Your task to perform on an android device: Open calendar and show me the third week of next month Image 0: 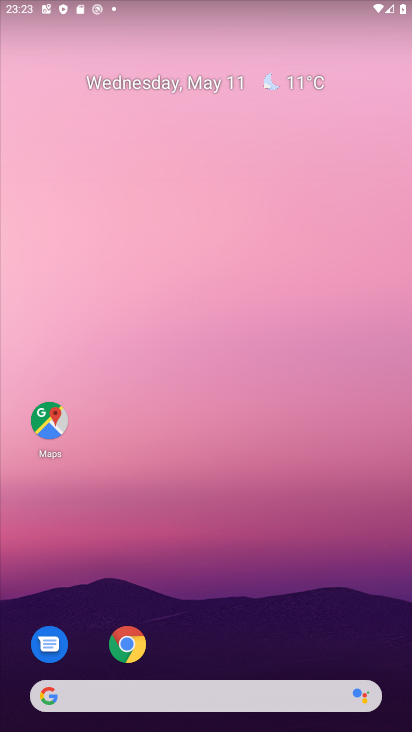
Step 0: drag from (213, 660) to (213, 61)
Your task to perform on an android device: Open calendar and show me the third week of next month Image 1: 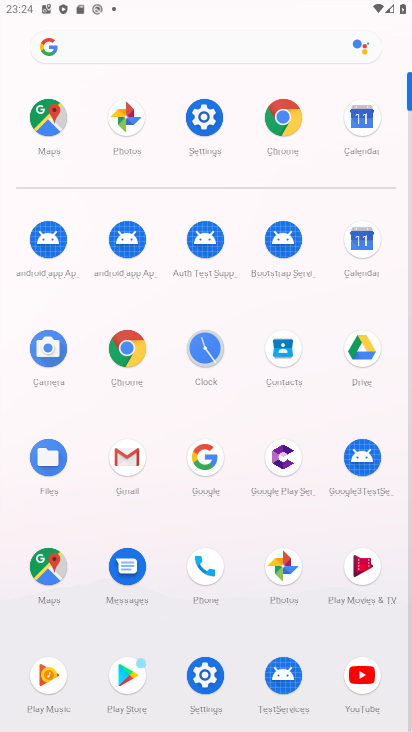
Step 1: click (360, 237)
Your task to perform on an android device: Open calendar and show me the third week of next month Image 2: 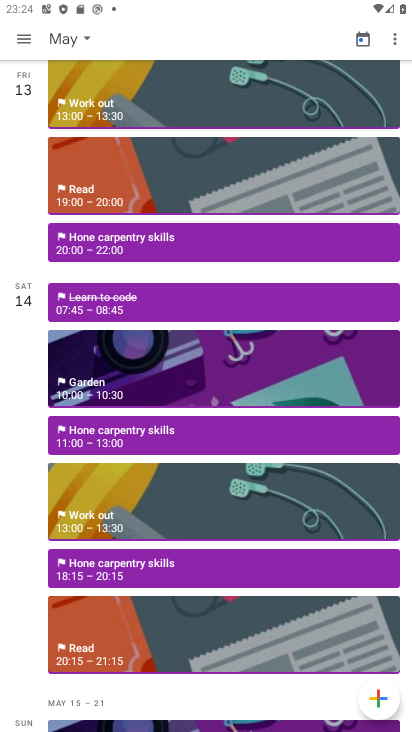
Step 2: click (82, 36)
Your task to perform on an android device: Open calendar and show me the third week of next month Image 3: 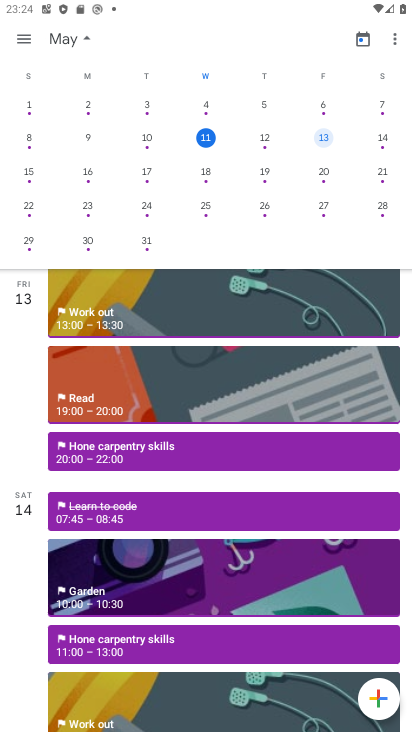
Step 3: drag from (382, 130) to (5, 162)
Your task to perform on an android device: Open calendar and show me the third week of next month Image 4: 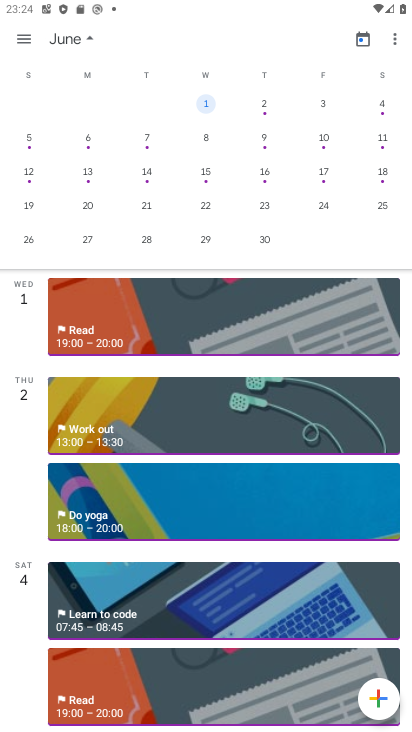
Step 4: click (28, 174)
Your task to perform on an android device: Open calendar and show me the third week of next month Image 5: 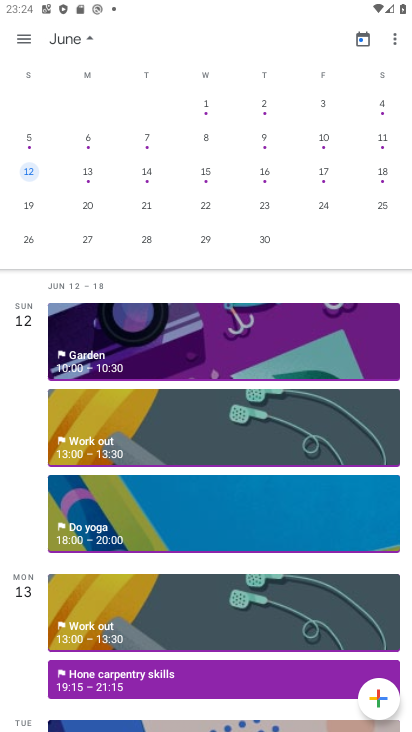
Step 5: click (25, 204)
Your task to perform on an android device: Open calendar and show me the third week of next month Image 6: 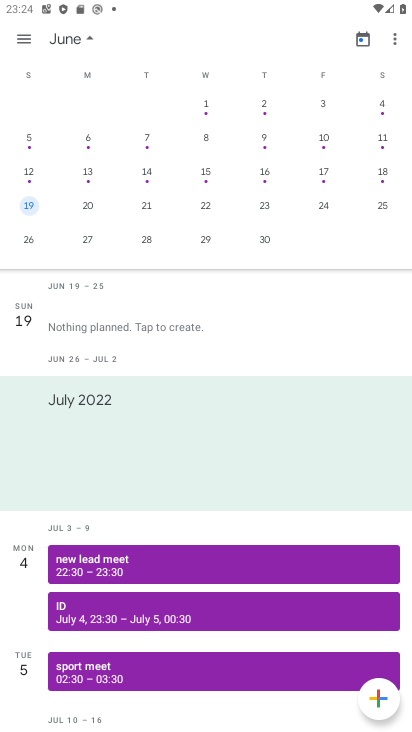
Step 6: click (30, 328)
Your task to perform on an android device: Open calendar and show me the third week of next month Image 7: 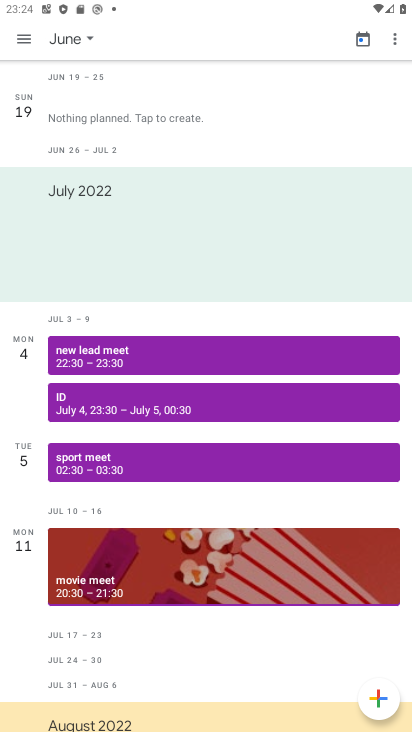
Step 7: click (32, 129)
Your task to perform on an android device: Open calendar and show me the third week of next month Image 8: 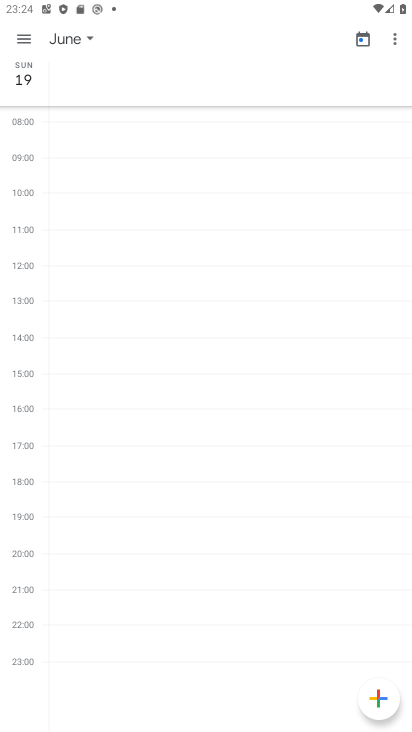
Step 8: click (33, 92)
Your task to perform on an android device: Open calendar and show me the third week of next month Image 9: 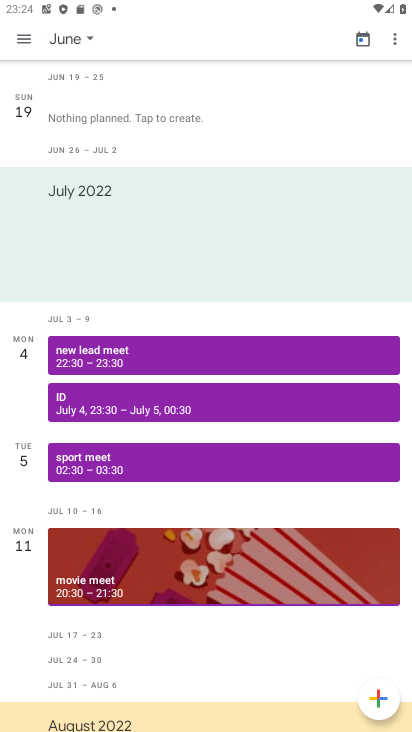
Step 9: task complete